Your task to perform on an android device: open the mobile data screen to see how much data has been used Image 0: 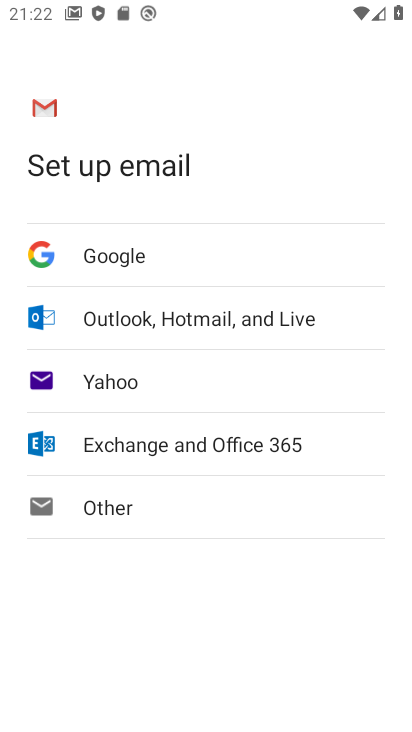
Step 0: press home button
Your task to perform on an android device: open the mobile data screen to see how much data has been used Image 1: 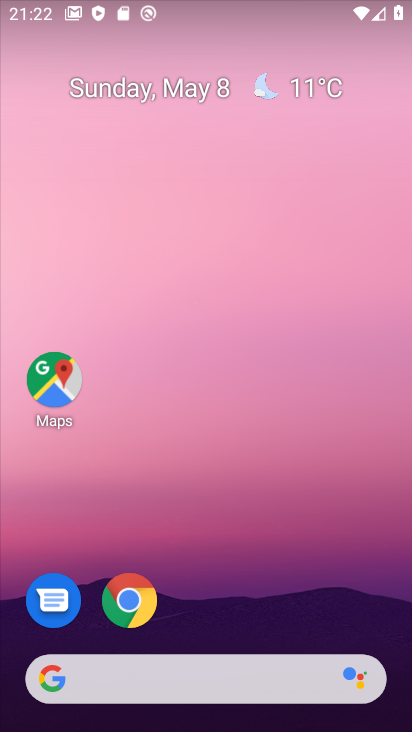
Step 1: drag from (242, 604) to (320, 191)
Your task to perform on an android device: open the mobile data screen to see how much data has been used Image 2: 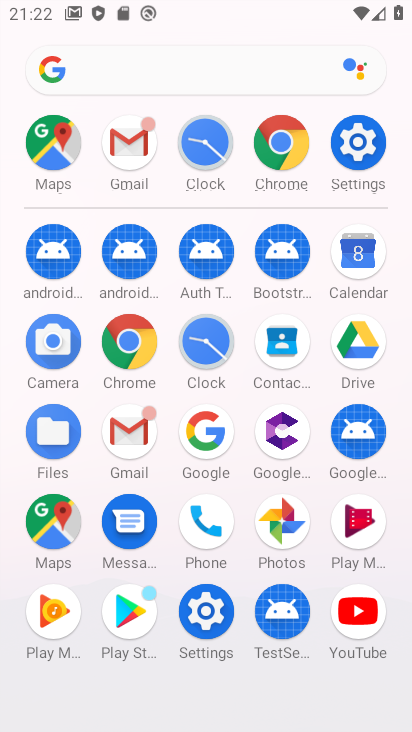
Step 2: click (348, 144)
Your task to perform on an android device: open the mobile data screen to see how much data has been used Image 3: 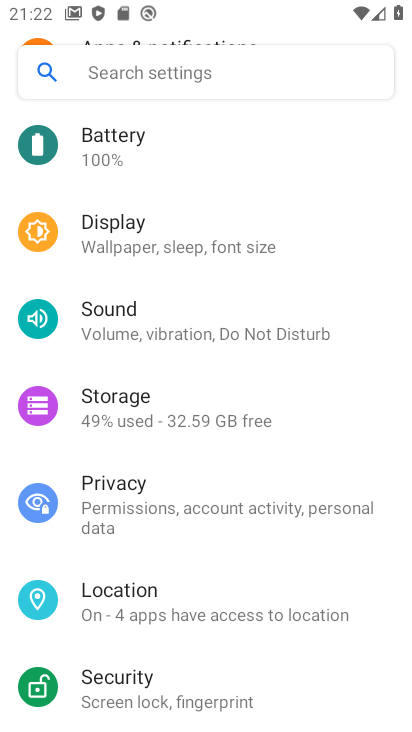
Step 3: drag from (262, 274) to (298, 640)
Your task to perform on an android device: open the mobile data screen to see how much data has been used Image 4: 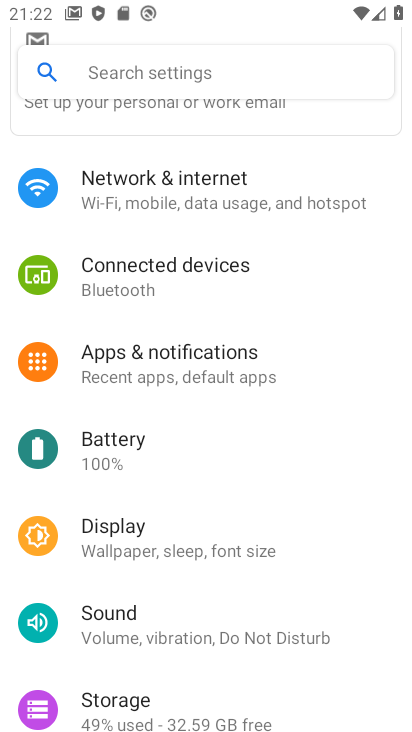
Step 4: click (141, 173)
Your task to perform on an android device: open the mobile data screen to see how much data has been used Image 5: 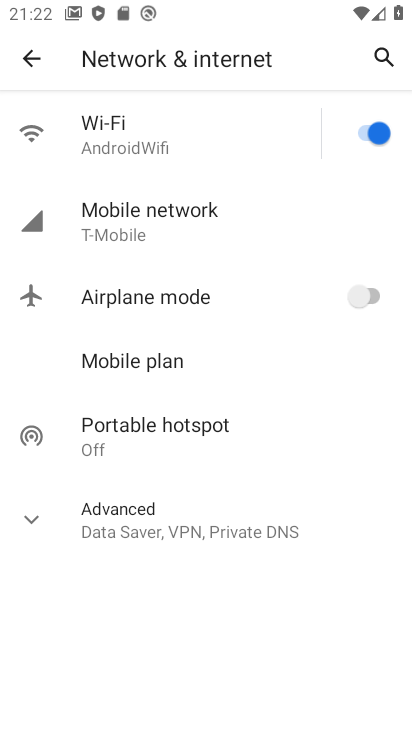
Step 5: click (165, 226)
Your task to perform on an android device: open the mobile data screen to see how much data has been used Image 6: 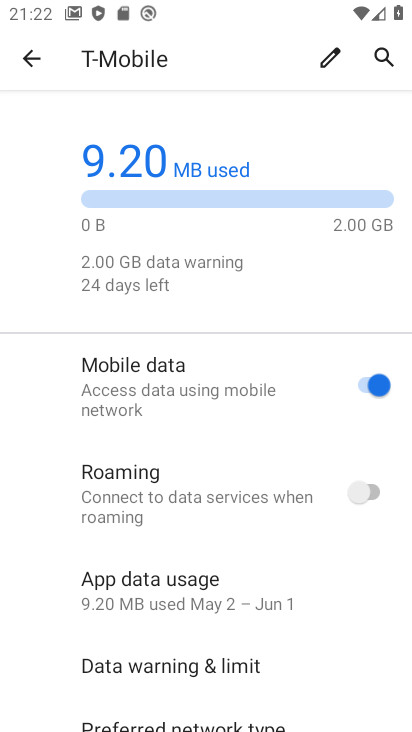
Step 6: task complete